Your task to perform on an android device: turn off priority inbox in the gmail app Image 0: 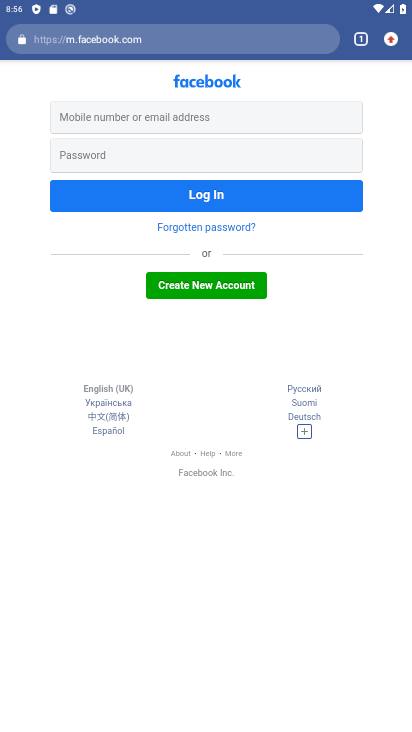
Step 0: press home button
Your task to perform on an android device: turn off priority inbox in the gmail app Image 1: 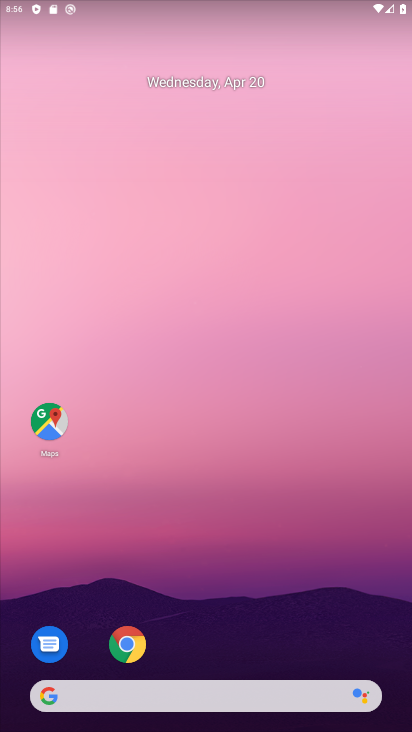
Step 1: drag from (174, 678) to (235, 313)
Your task to perform on an android device: turn off priority inbox in the gmail app Image 2: 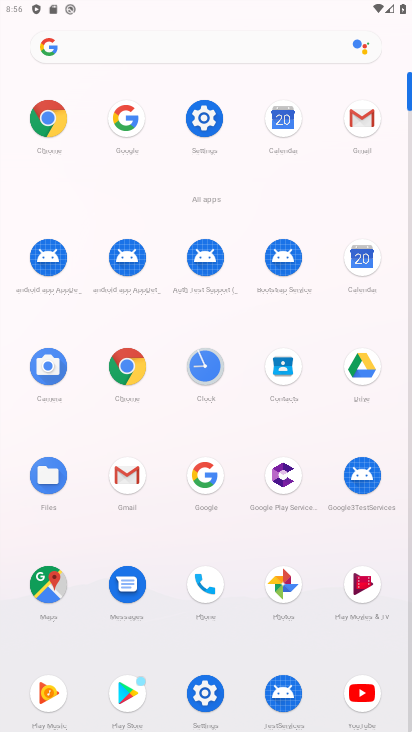
Step 2: click (365, 124)
Your task to perform on an android device: turn off priority inbox in the gmail app Image 3: 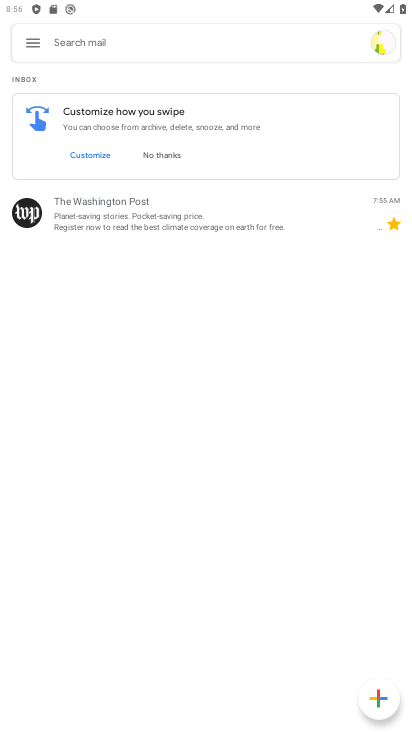
Step 3: click (34, 45)
Your task to perform on an android device: turn off priority inbox in the gmail app Image 4: 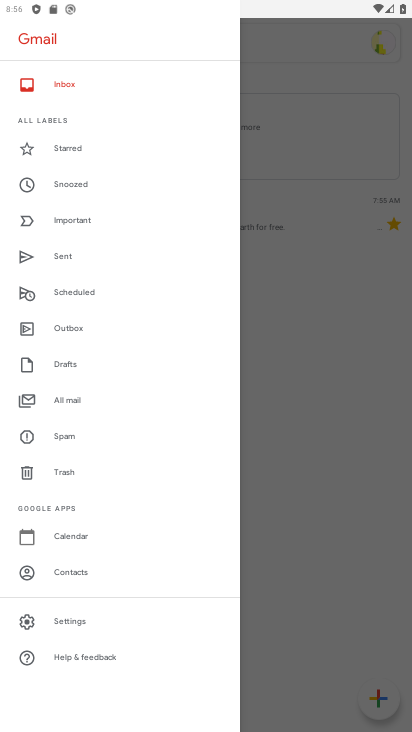
Step 4: click (62, 620)
Your task to perform on an android device: turn off priority inbox in the gmail app Image 5: 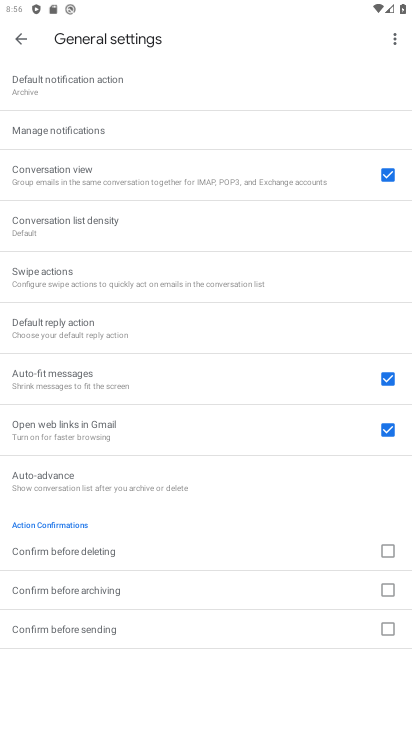
Step 5: click (13, 39)
Your task to perform on an android device: turn off priority inbox in the gmail app Image 6: 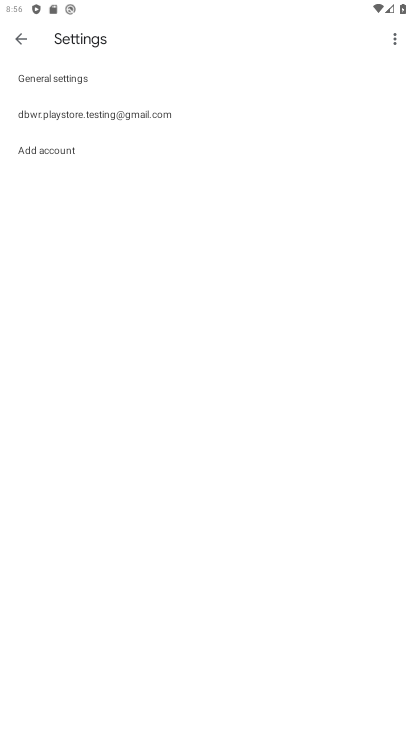
Step 6: click (40, 78)
Your task to perform on an android device: turn off priority inbox in the gmail app Image 7: 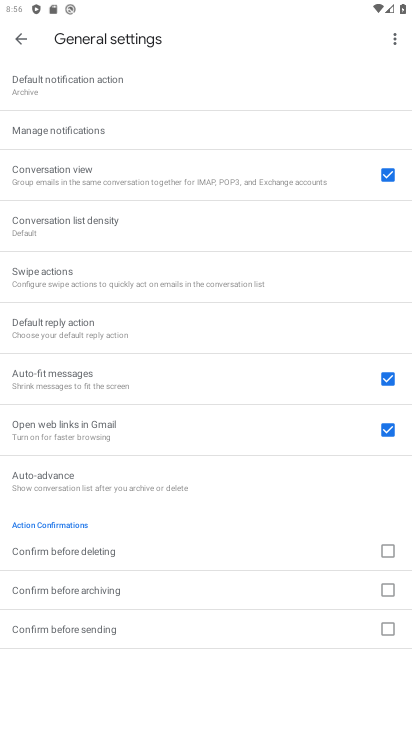
Step 7: click (23, 43)
Your task to perform on an android device: turn off priority inbox in the gmail app Image 8: 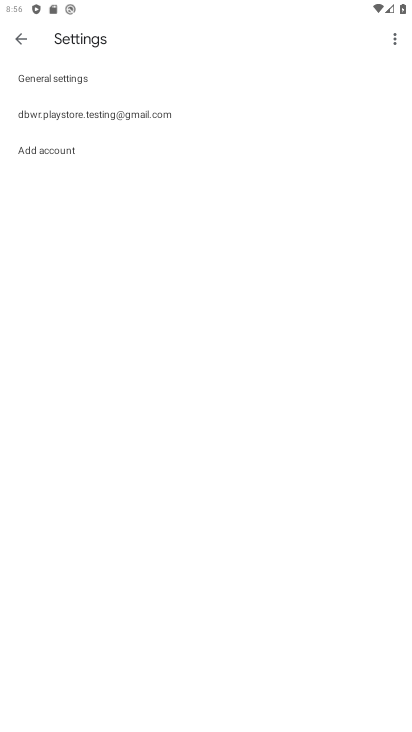
Step 8: click (75, 113)
Your task to perform on an android device: turn off priority inbox in the gmail app Image 9: 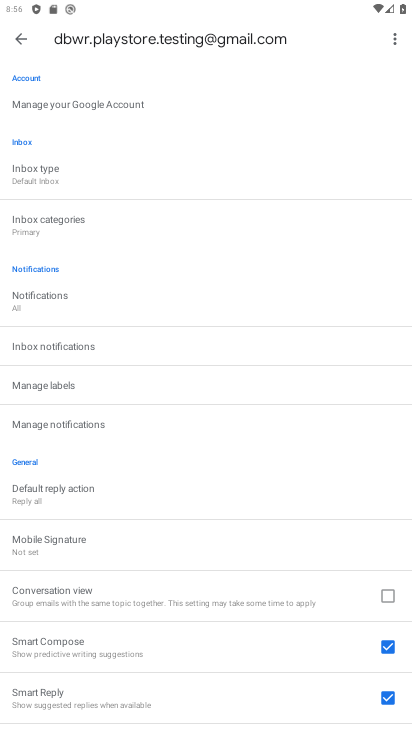
Step 9: task complete